Your task to perform on an android device: Go to notification settings Image 0: 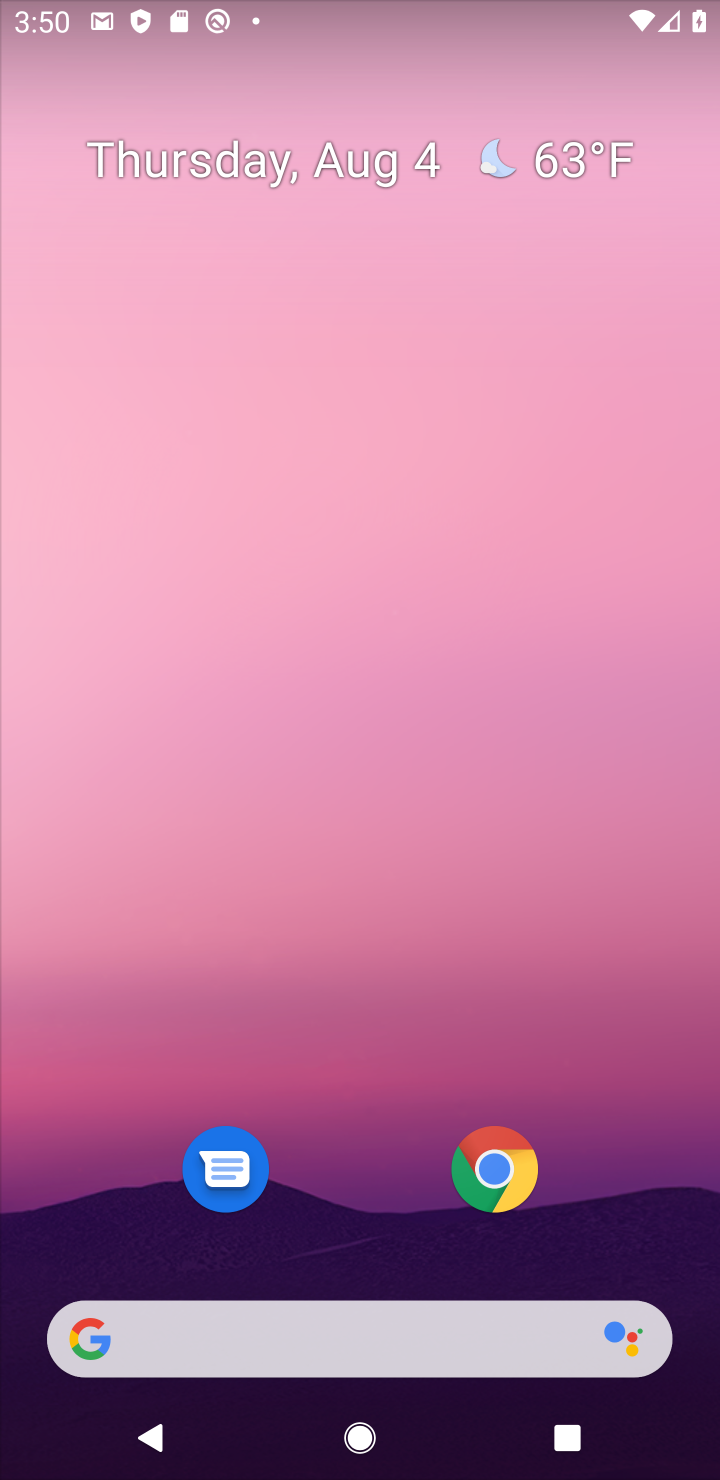
Step 0: drag from (273, 1234) to (261, 187)
Your task to perform on an android device: Go to notification settings Image 1: 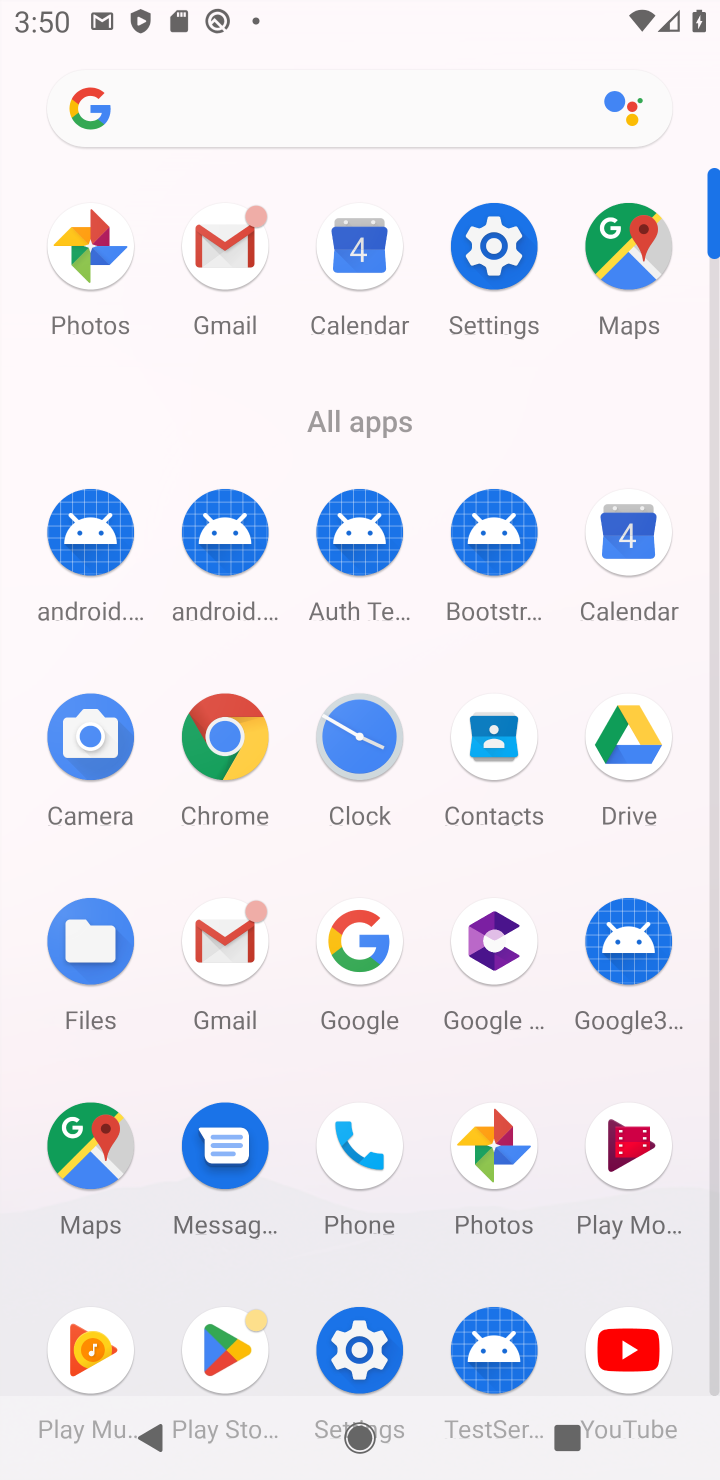
Step 1: drag from (328, 1110) to (347, 702)
Your task to perform on an android device: Go to notification settings Image 2: 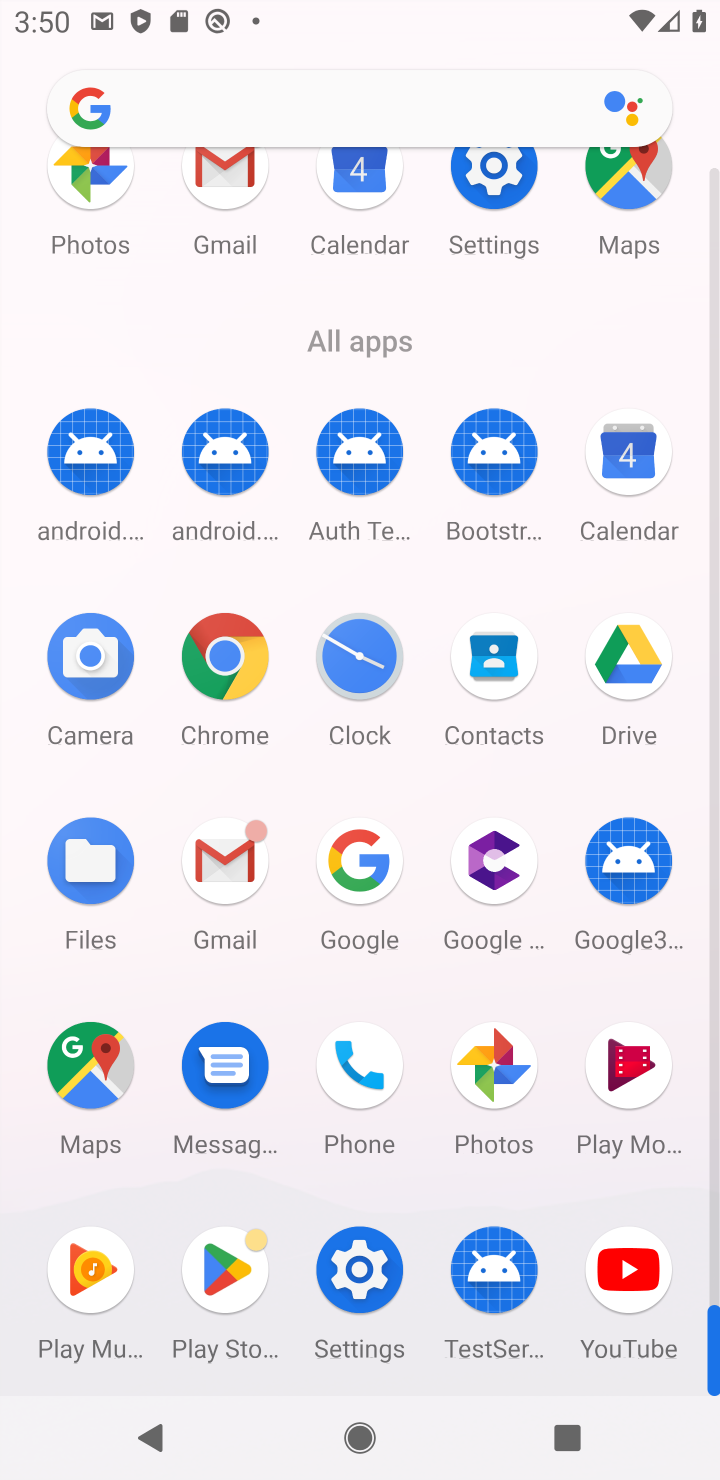
Step 2: click (360, 1284)
Your task to perform on an android device: Go to notification settings Image 3: 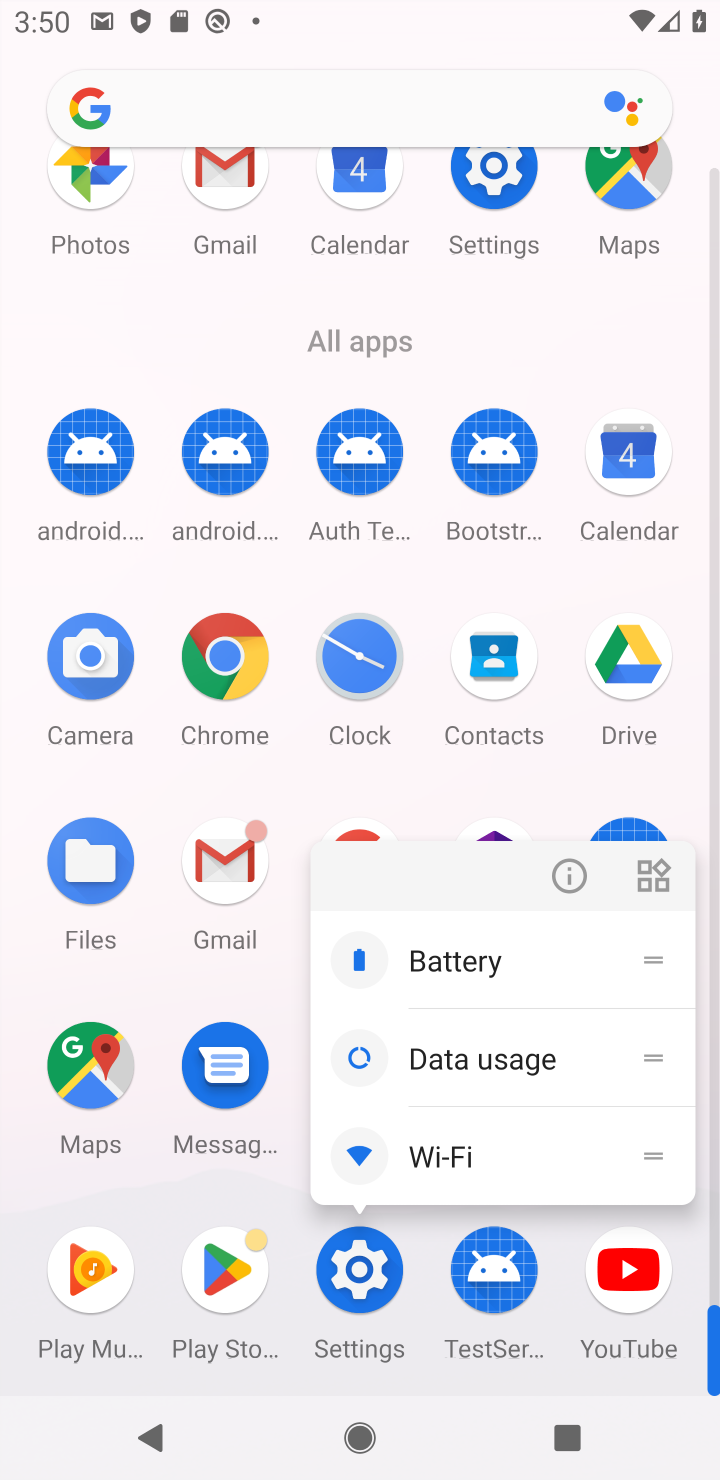
Step 3: click (358, 1282)
Your task to perform on an android device: Go to notification settings Image 4: 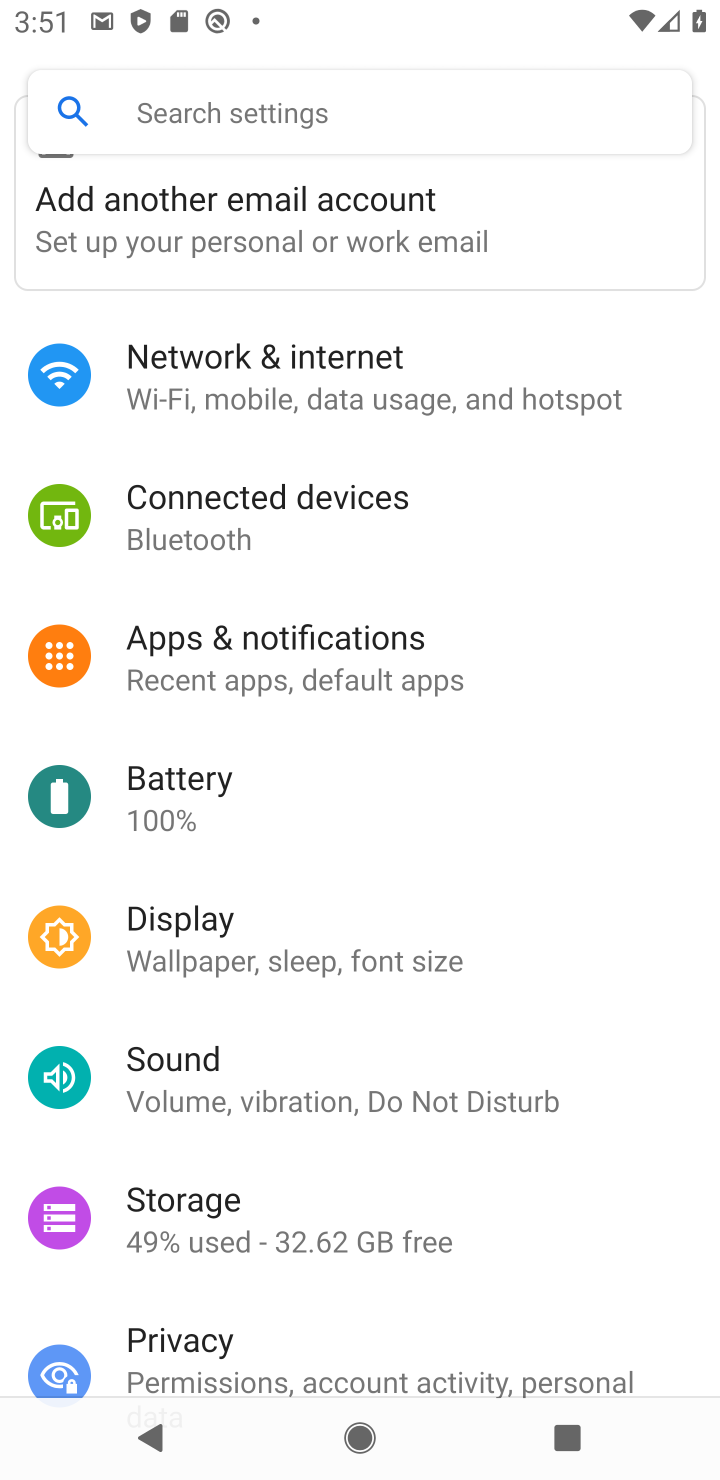
Step 4: click (375, 657)
Your task to perform on an android device: Go to notification settings Image 5: 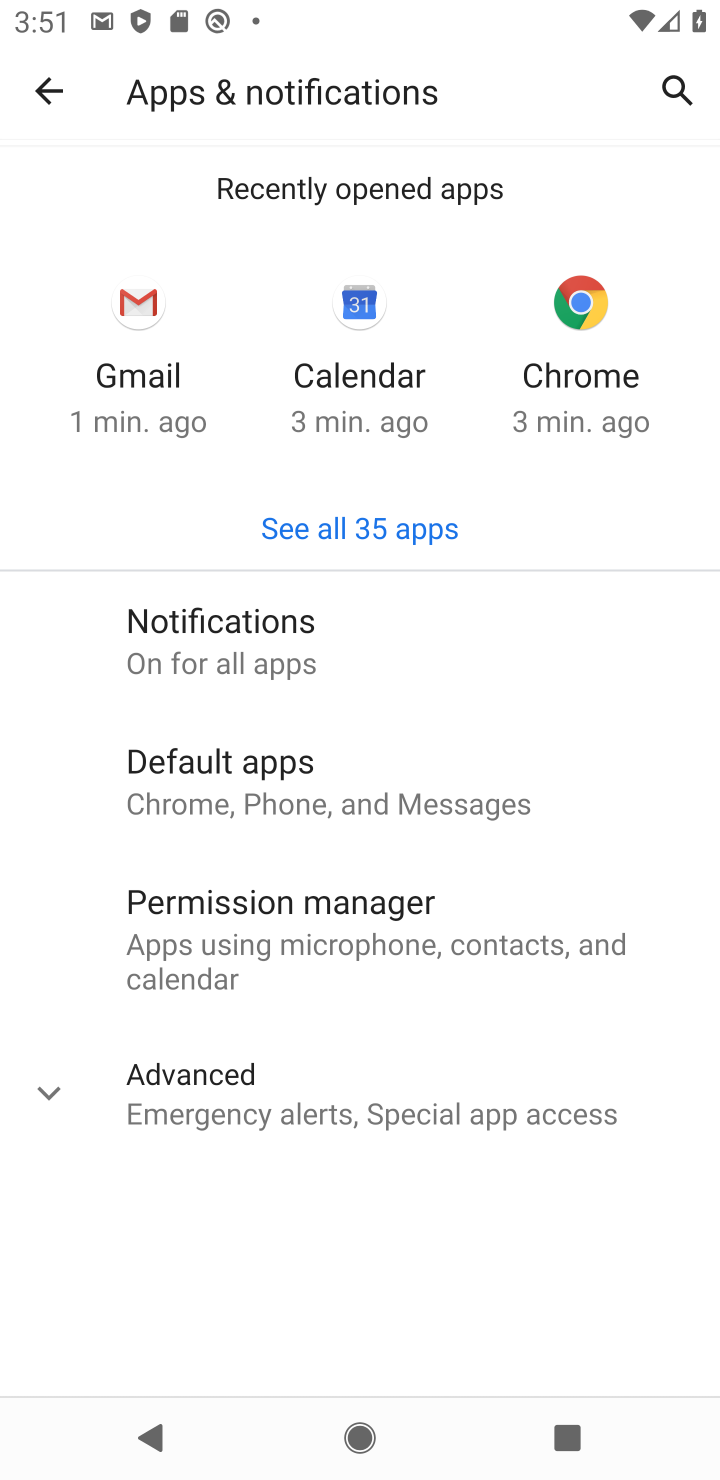
Step 5: click (287, 647)
Your task to perform on an android device: Go to notification settings Image 6: 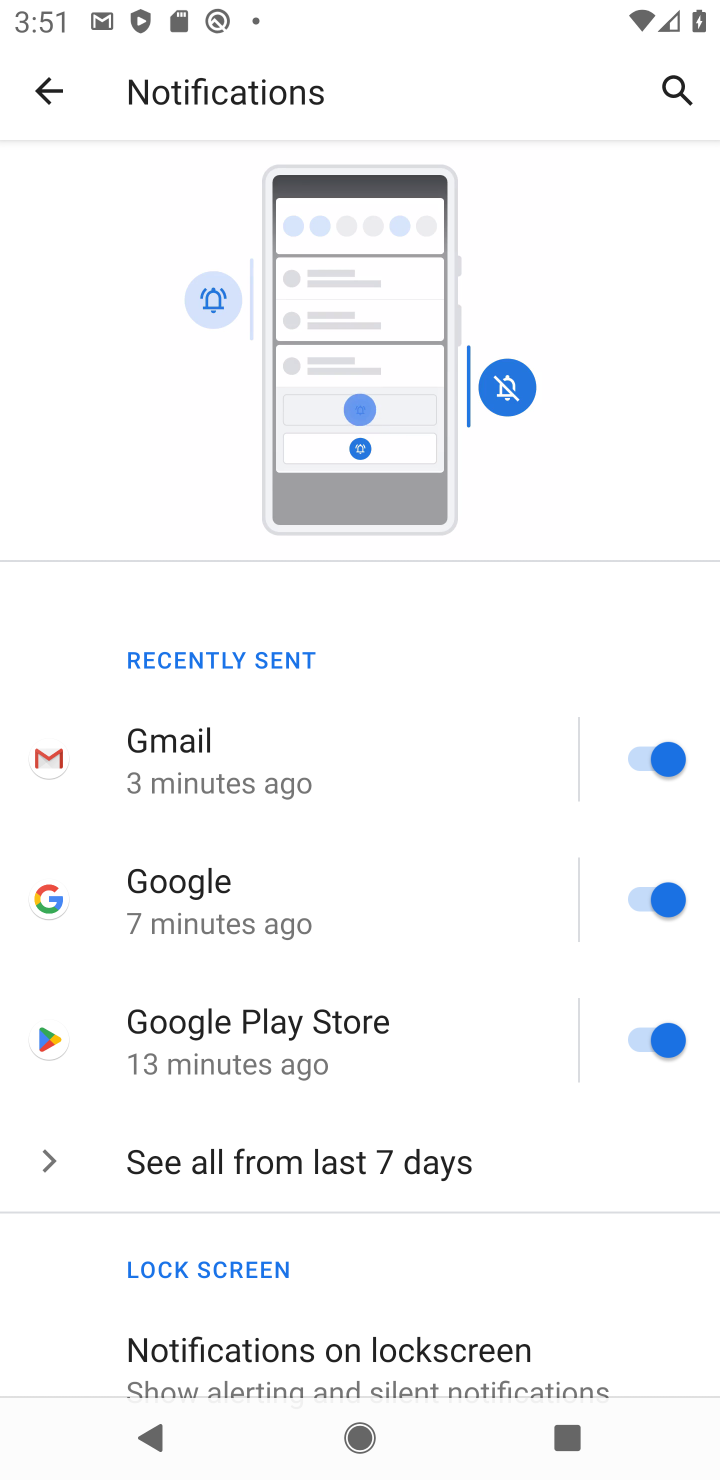
Step 6: drag from (351, 1004) to (375, 591)
Your task to perform on an android device: Go to notification settings Image 7: 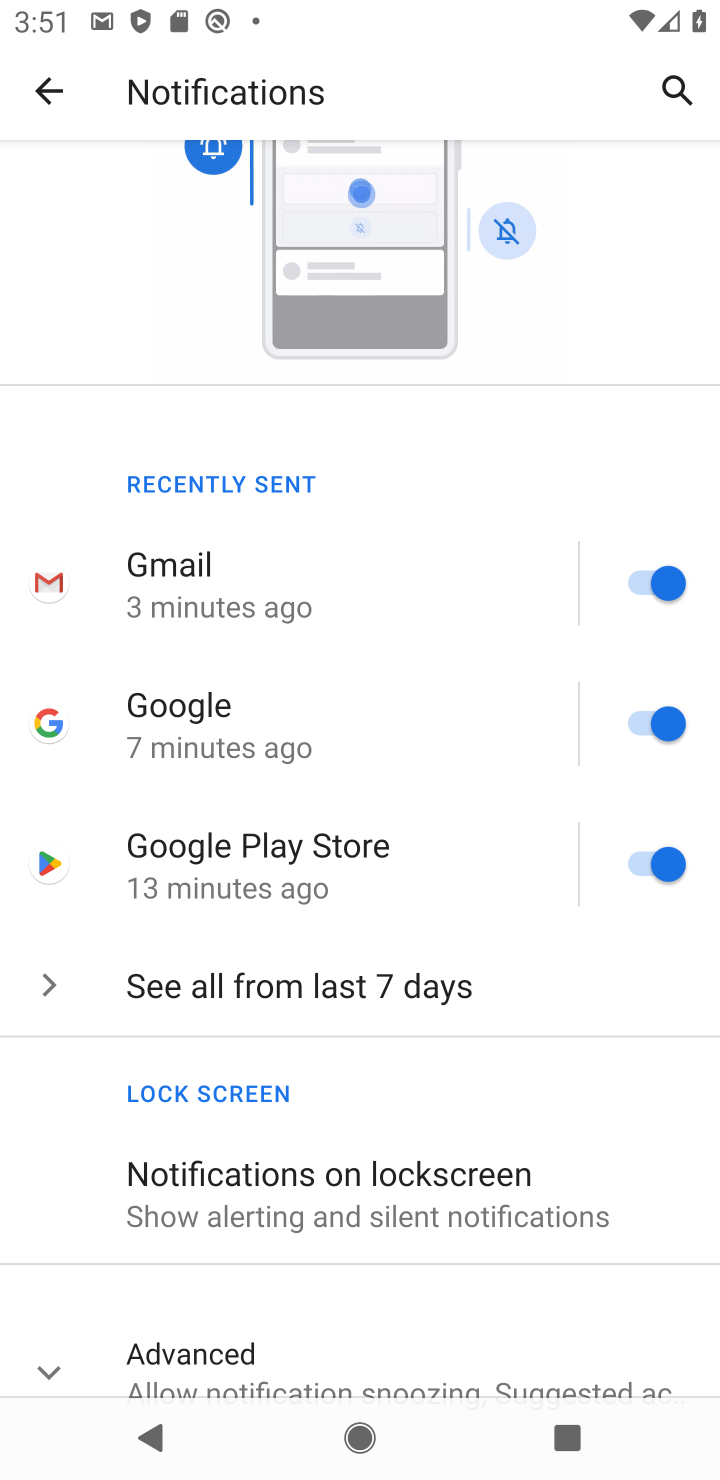
Step 7: drag from (401, 1146) to (431, 824)
Your task to perform on an android device: Go to notification settings Image 8: 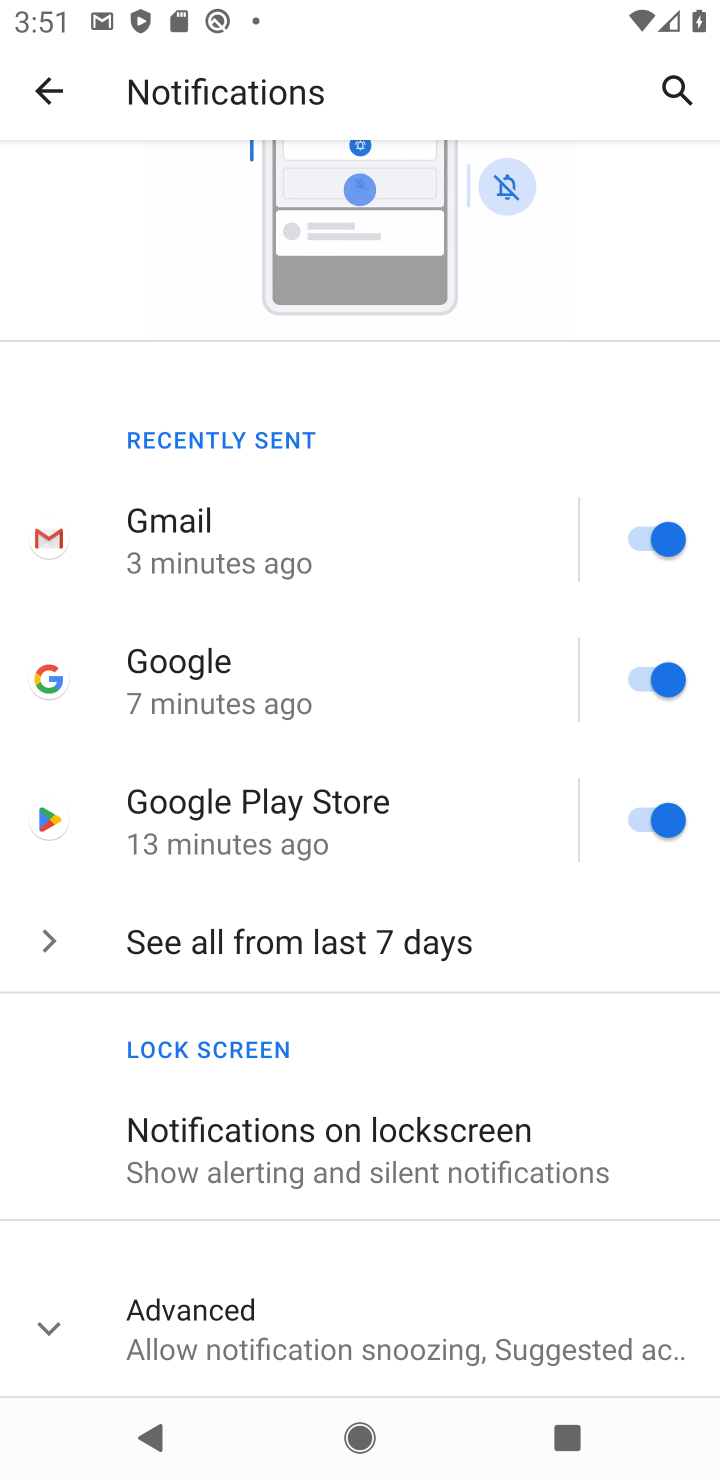
Step 8: click (370, 751)
Your task to perform on an android device: Go to notification settings Image 9: 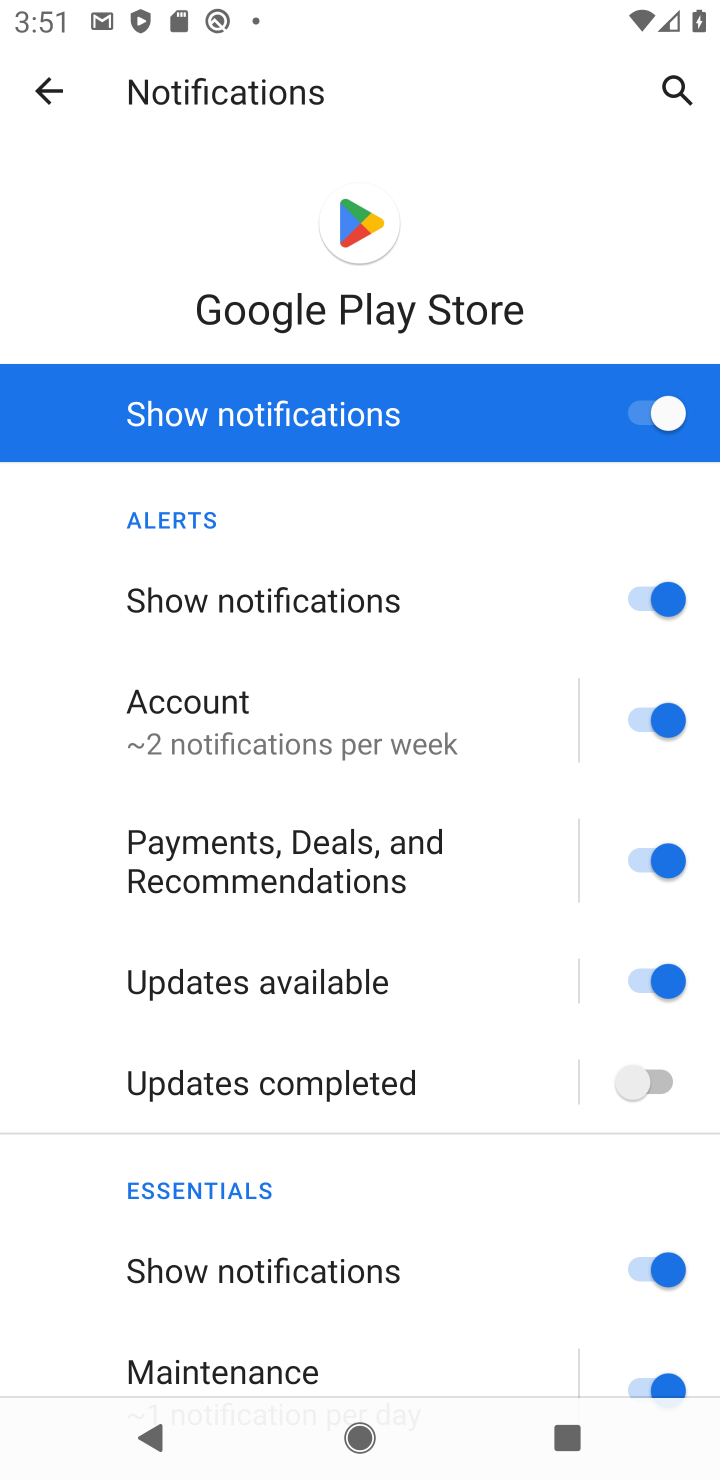
Step 9: task complete